Your task to perform on an android device: Show me the alarms in the clock app Image 0: 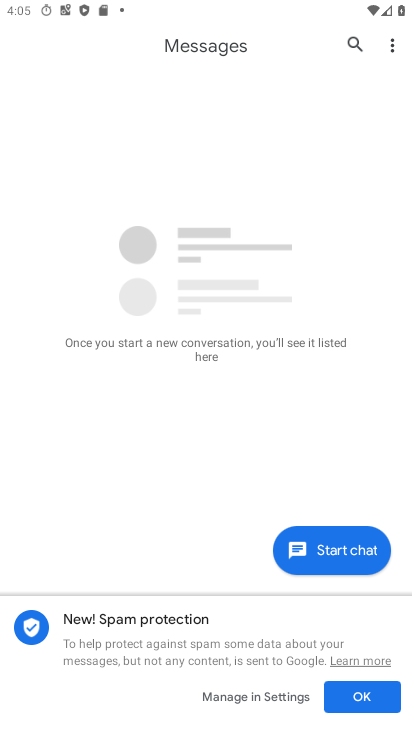
Step 0: press home button
Your task to perform on an android device: Show me the alarms in the clock app Image 1: 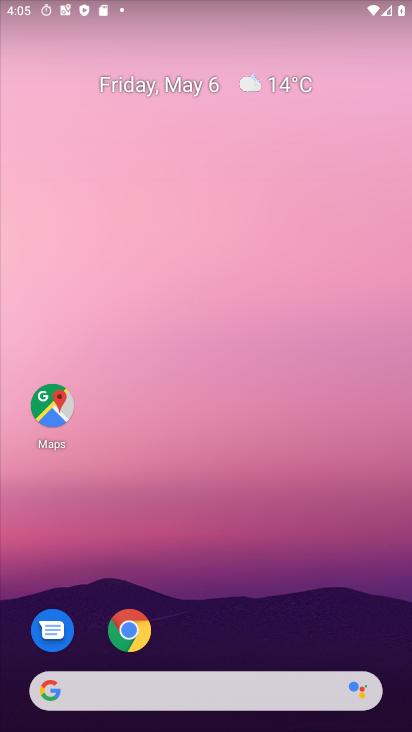
Step 1: drag from (229, 646) to (233, 41)
Your task to perform on an android device: Show me the alarms in the clock app Image 2: 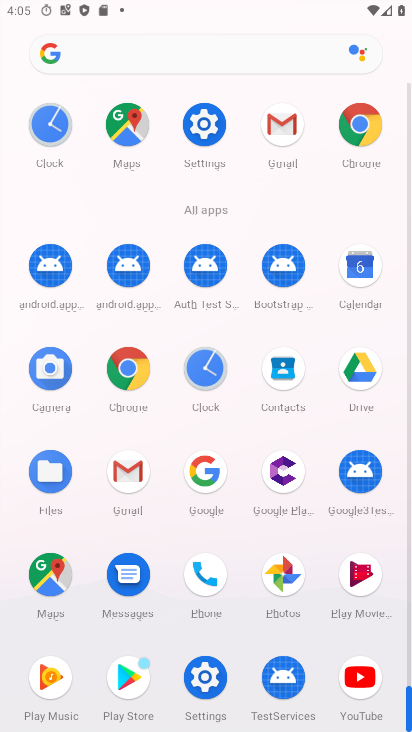
Step 2: click (44, 125)
Your task to perform on an android device: Show me the alarms in the clock app Image 3: 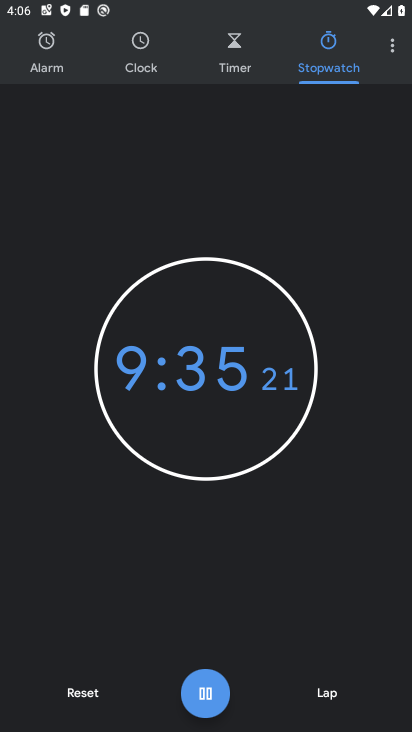
Step 3: click (49, 37)
Your task to perform on an android device: Show me the alarms in the clock app Image 4: 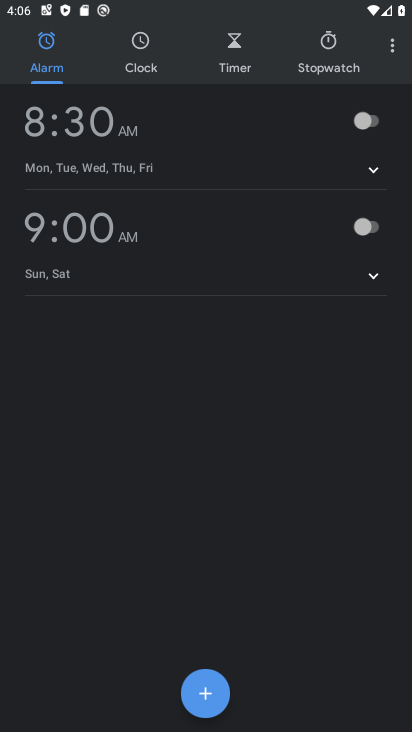
Step 4: click (368, 235)
Your task to perform on an android device: Show me the alarms in the clock app Image 5: 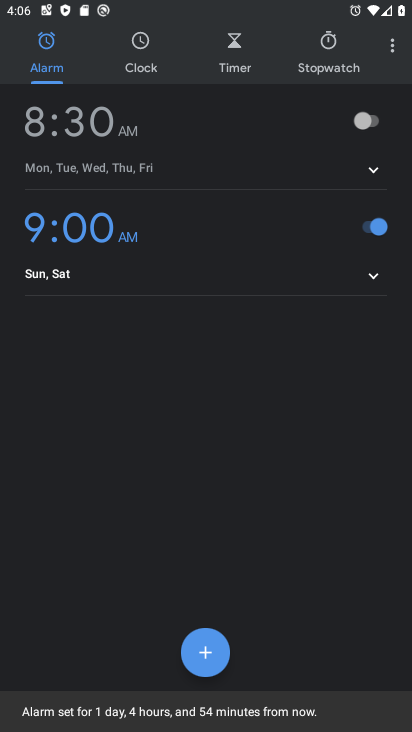
Step 5: task complete